Your task to perform on an android device: empty trash in google photos Image 0: 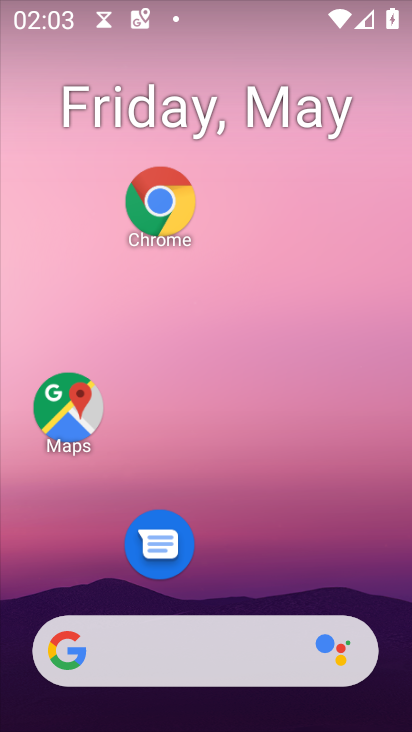
Step 0: drag from (293, 570) to (239, 171)
Your task to perform on an android device: empty trash in google photos Image 1: 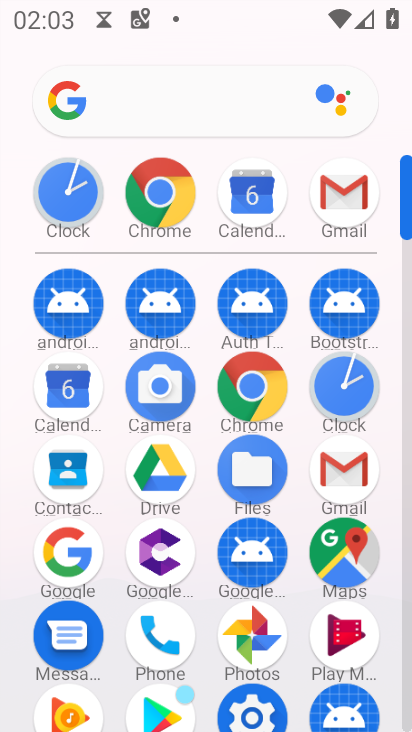
Step 1: drag from (114, 354) to (126, 221)
Your task to perform on an android device: empty trash in google photos Image 2: 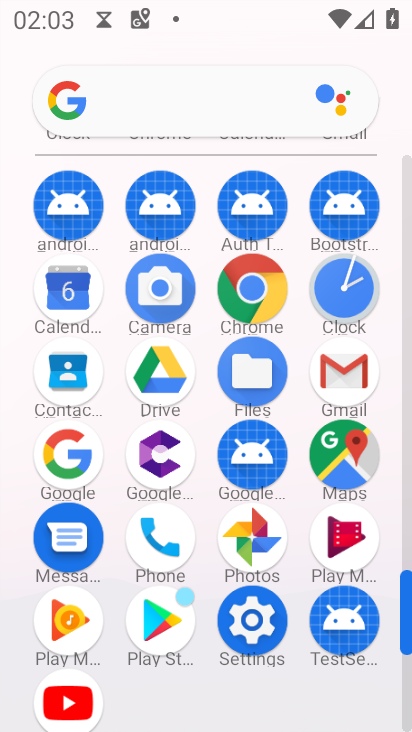
Step 2: click (263, 536)
Your task to perform on an android device: empty trash in google photos Image 3: 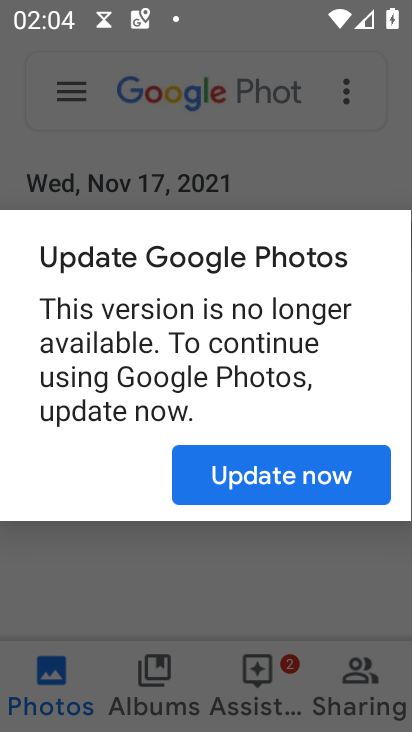
Step 3: click (292, 480)
Your task to perform on an android device: empty trash in google photos Image 4: 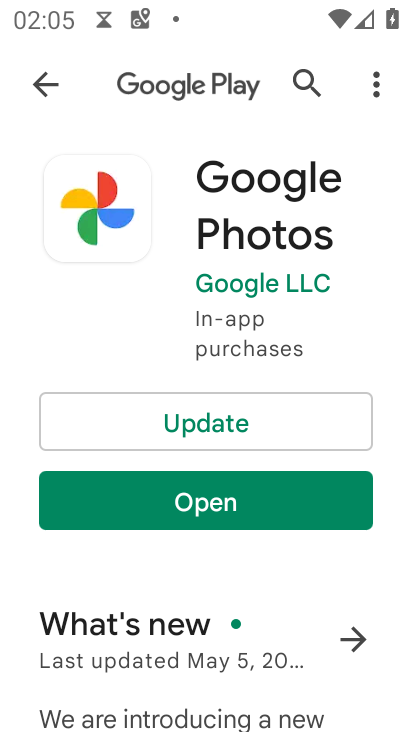
Step 4: click (283, 417)
Your task to perform on an android device: empty trash in google photos Image 5: 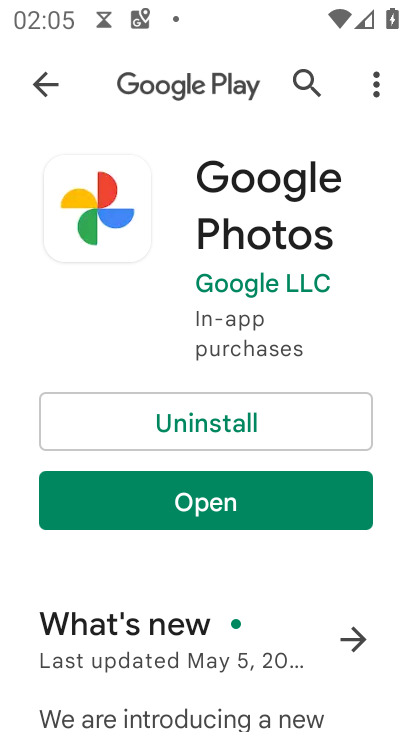
Step 5: click (269, 514)
Your task to perform on an android device: empty trash in google photos Image 6: 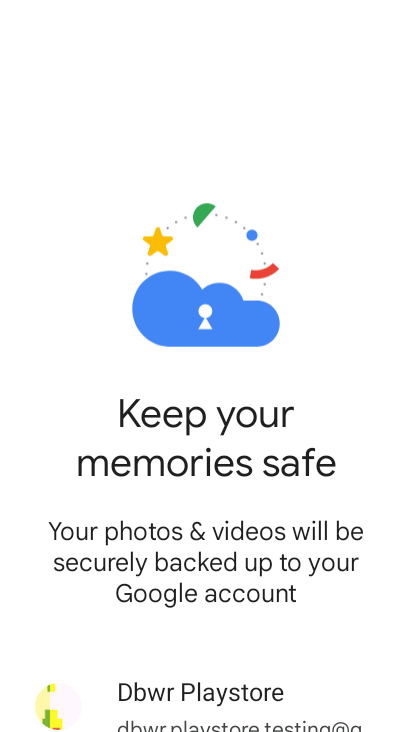
Step 6: drag from (253, 608) to (238, 233)
Your task to perform on an android device: empty trash in google photos Image 7: 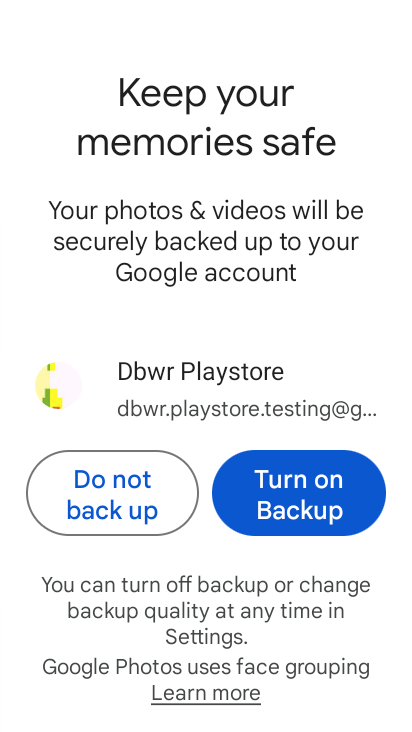
Step 7: click (253, 483)
Your task to perform on an android device: empty trash in google photos Image 8: 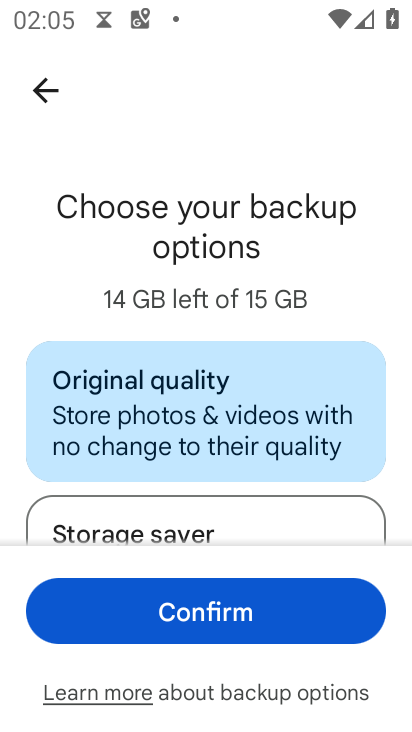
Step 8: click (214, 625)
Your task to perform on an android device: empty trash in google photos Image 9: 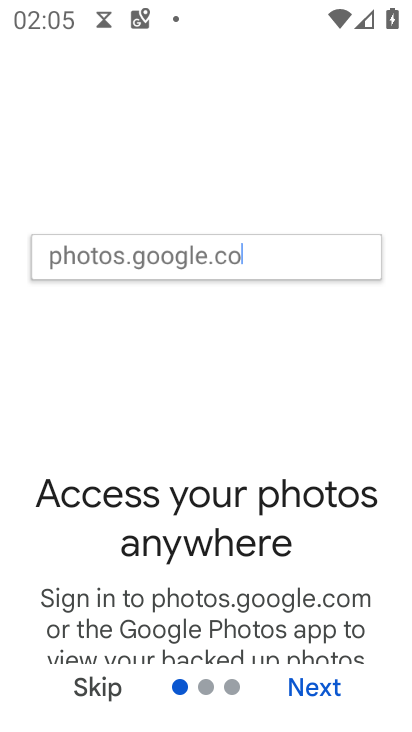
Step 9: click (308, 683)
Your task to perform on an android device: empty trash in google photos Image 10: 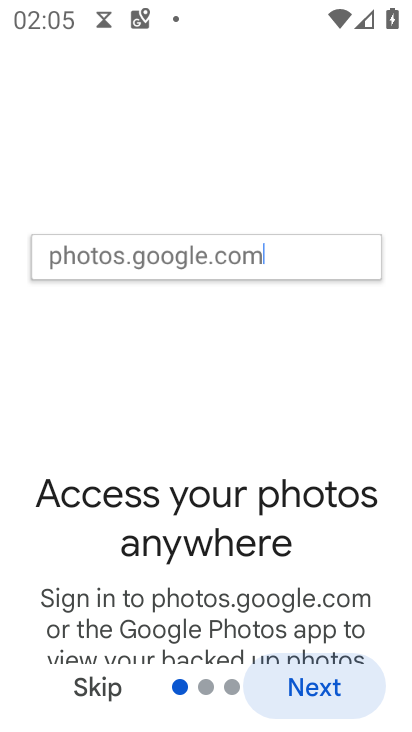
Step 10: click (308, 683)
Your task to perform on an android device: empty trash in google photos Image 11: 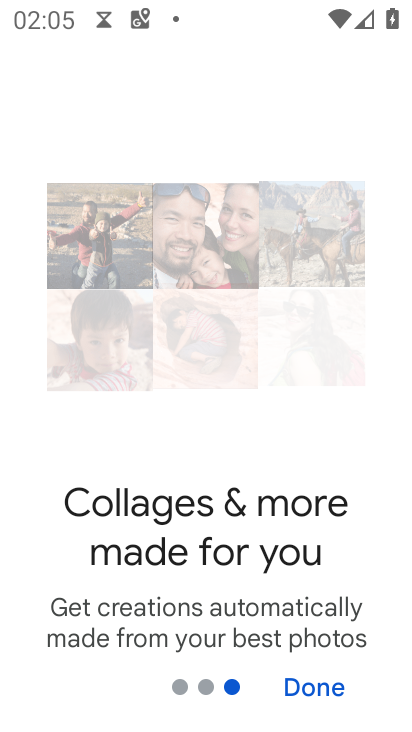
Step 11: click (307, 683)
Your task to perform on an android device: empty trash in google photos Image 12: 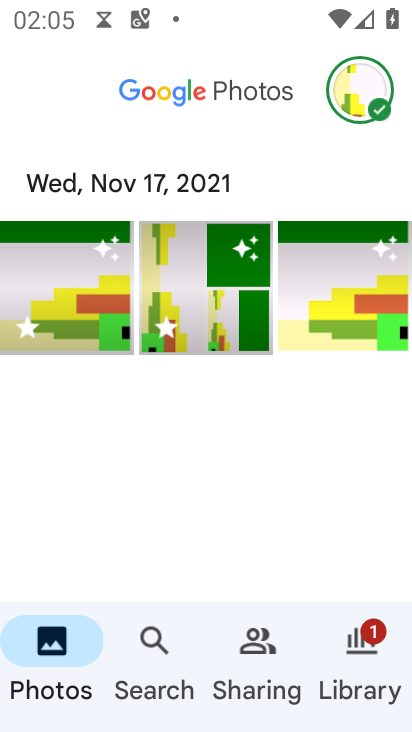
Step 12: click (388, 657)
Your task to perform on an android device: empty trash in google photos Image 13: 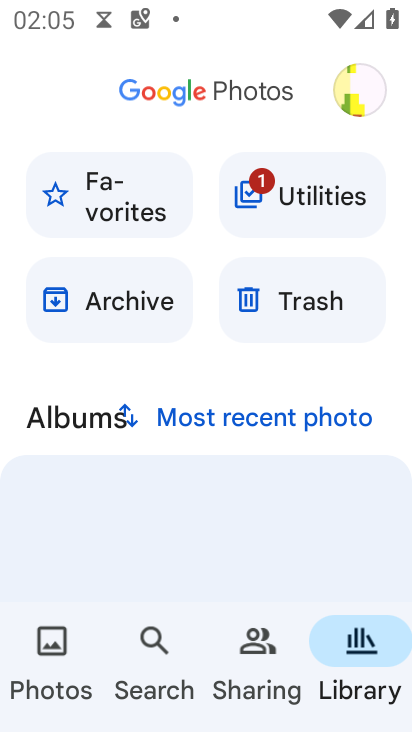
Step 13: click (288, 315)
Your task to perform on an android device: empty trash in google photos Image 14: 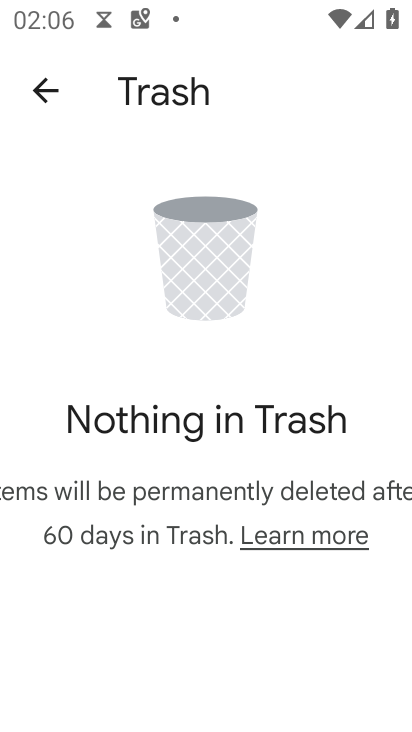
Step 14: task complete